Your task to perform on an android device: delete the emails in spam in the gmail app Image 0: 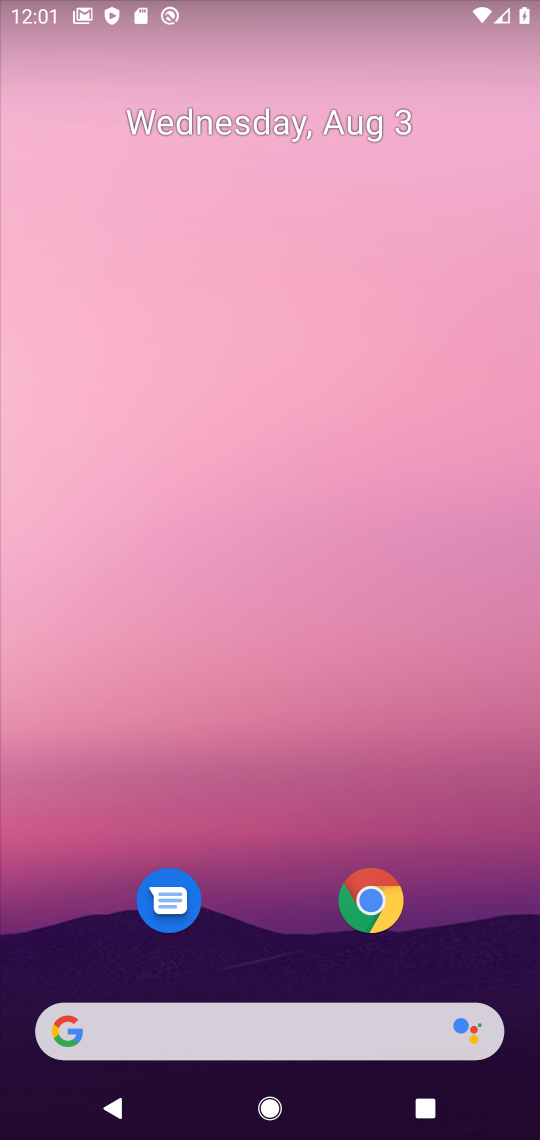
Step 0: drag from (233, 914) to (298, 31)
Your task to perform on an android device: delete the emails in spam in the gmail app Image 1: 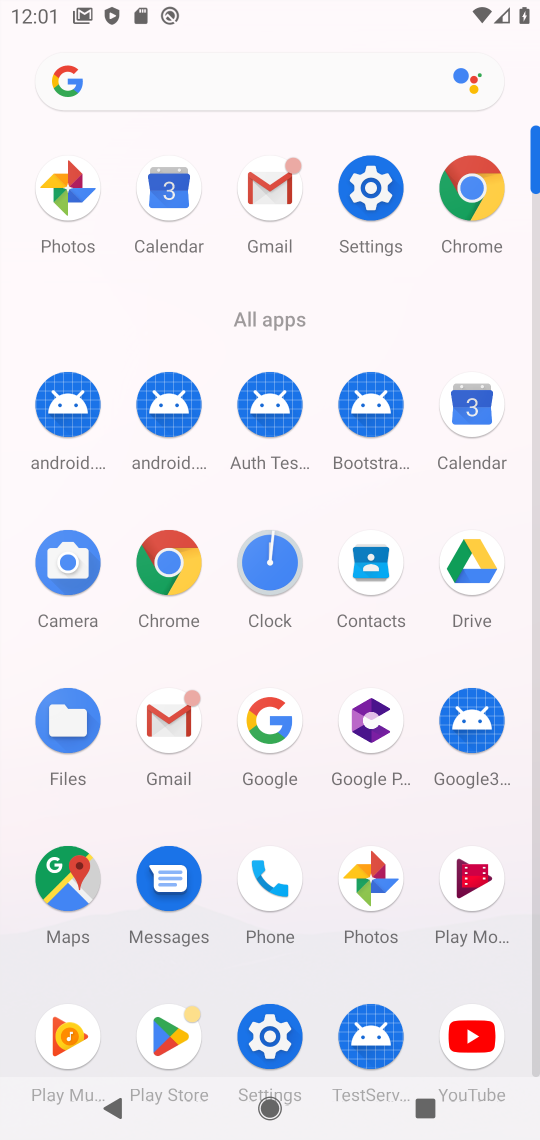
Step 1: click (276, 194)
Your task to perform on an android device: delete the emails in spam in the gmail app Image 2: 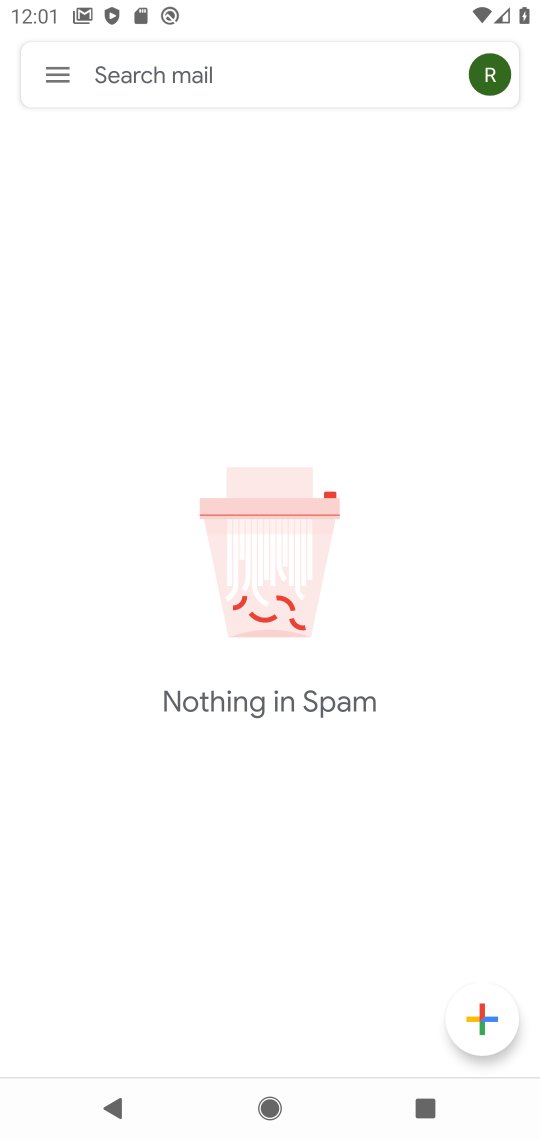
Step 2: task complete